Your task to perform on an android device: Open Maps and search for coffee Image 0: 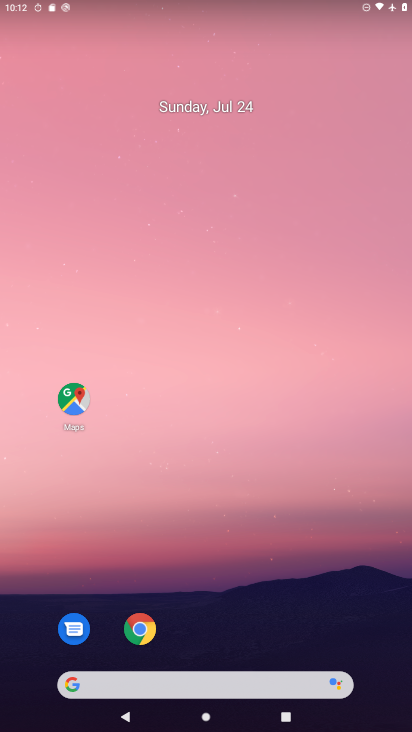
Step 0: drag from (218, 668) to (267, 268)
Your task to perform on an android device: Open Maps and search for coffee Image 1: 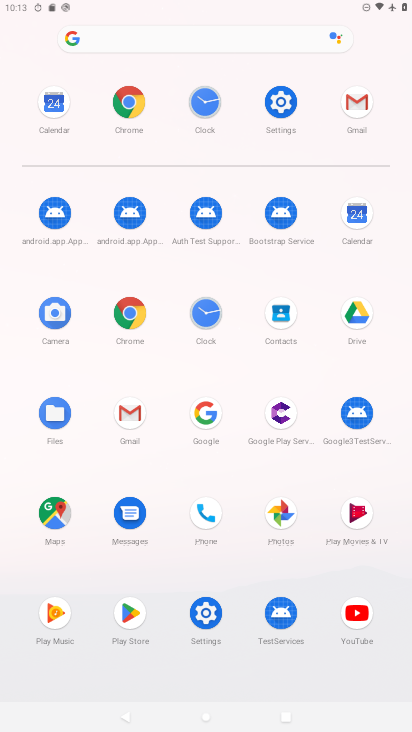
Step 1: click (61, 535)
Your task to perform on an android device: Open Maps and search for coffee Image 2: 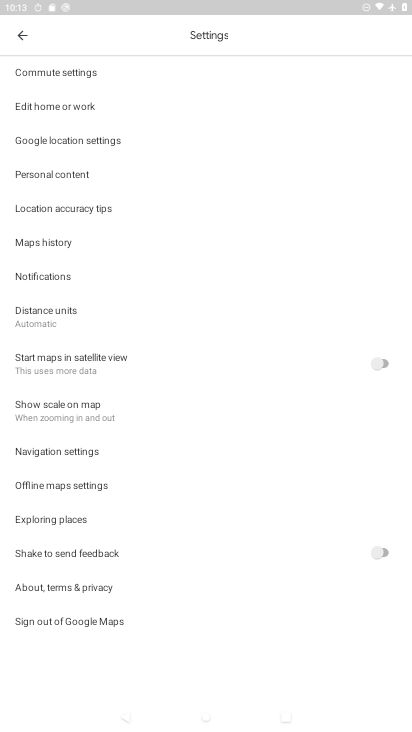
Step 2: click (24, 34)
Your task to perform on an android device: Open Maps and search for coffee Image 3: 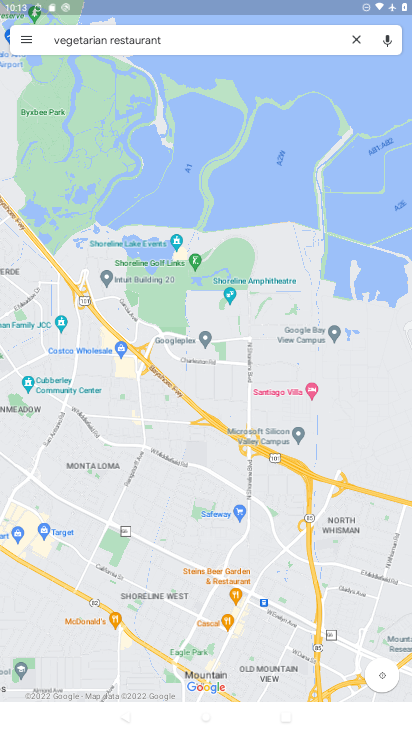
Step 3: click (353, 45)
Your task to perform on an android device: Open Maps and search for coffee Image 4: 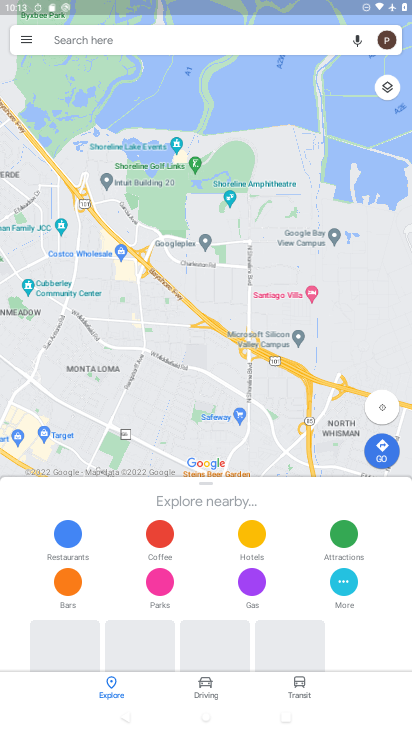
Step 4: click (294, 41)
Your task to perform on an android device: Open Maps and search for coffee Image 5: 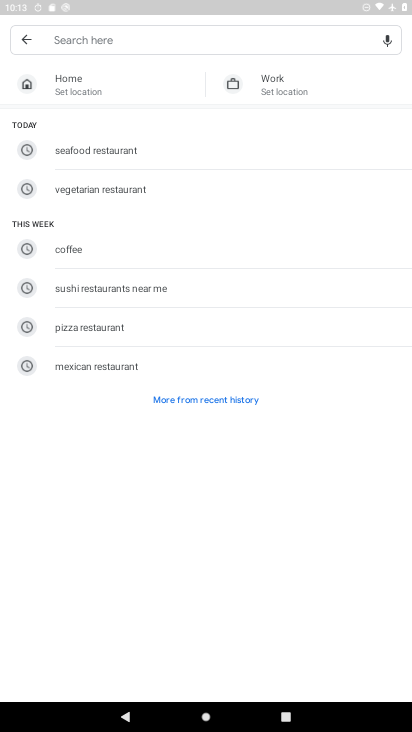
Step 5: click (81, 244)
Your task to perform on an android device: Open Maps and search for coffee Image 6: 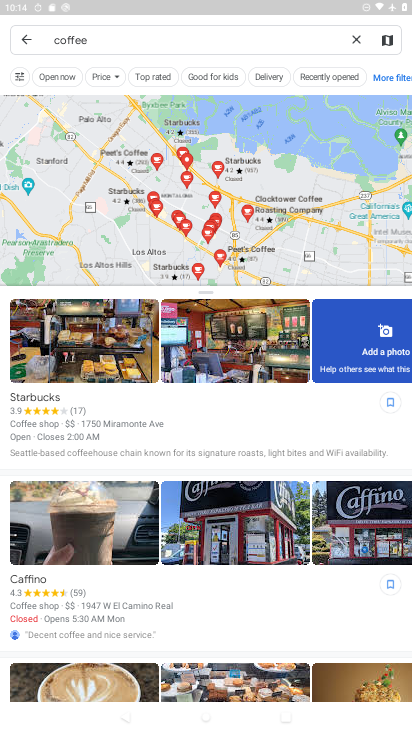
Step 6: task complete